Your task to perform on an android device: change keyboard looks Image 0: 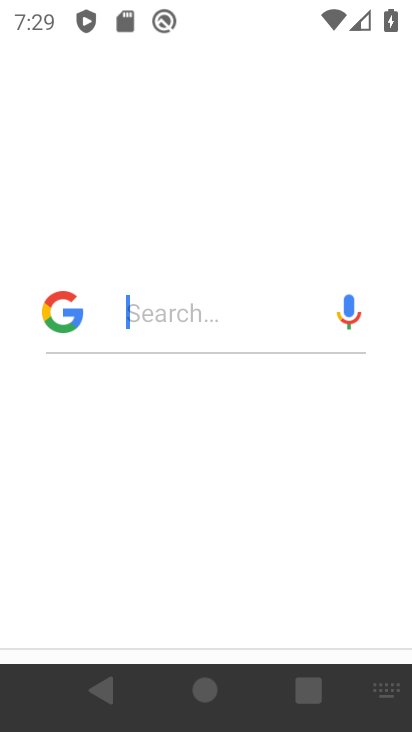
Step 0: drag from (222, 525) to (164, 383)
Your task to perform on an android device: change keyboard looks Image 1: 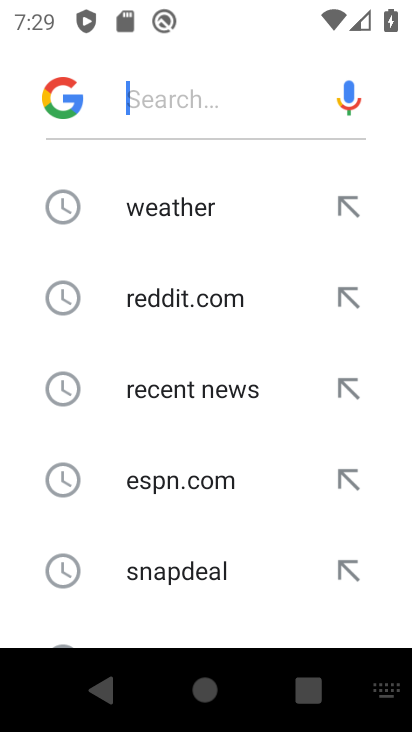
Step 1: press home button
Your task to perform on an android device: change keyboard looks Image 2: 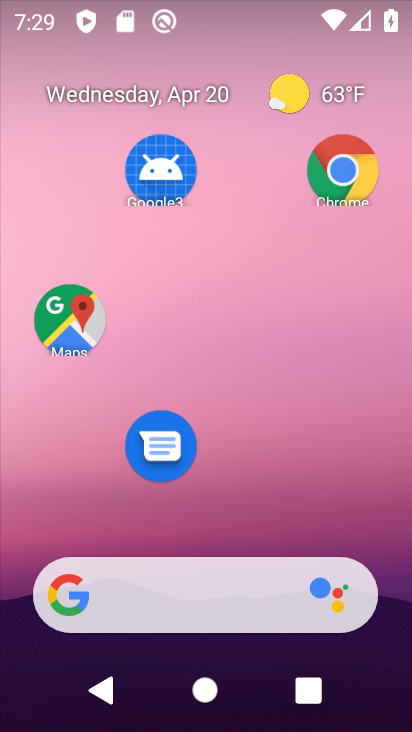
Step 2: drag from (242, 503) to (186, 15)
Your task to perform on an android device: change keyboard looks Image 3: 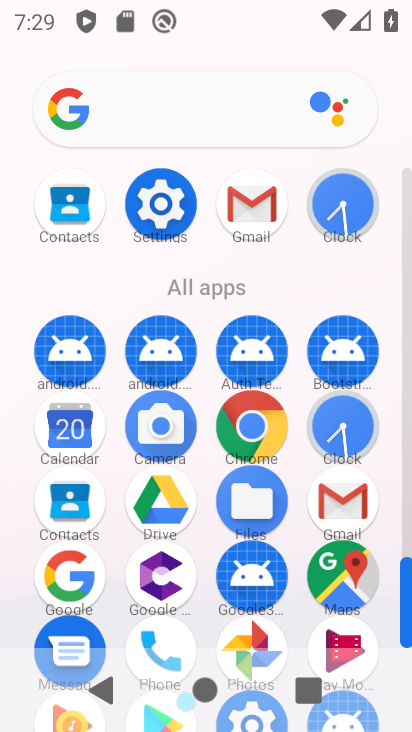
Step 3: click (167, 206)
Your task to perform on an android device: change keyboard looks Image 4: 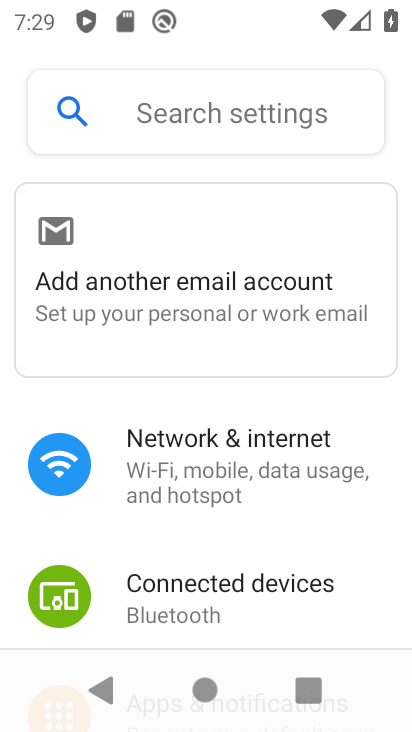
Step 4: drag from (240, 547) to (211, 137)
Your task to perform on an android device: change keyboard looks Image 5: 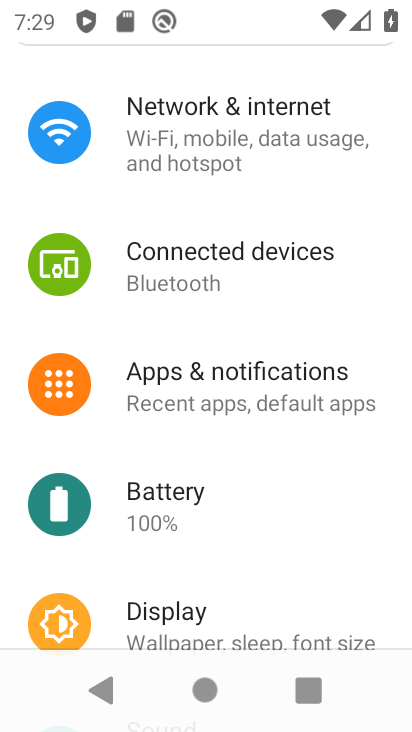
Step 5: drag from (275, 596) to (253, 394)
Your task to perform on an android device: change keyboard looks Image 6: 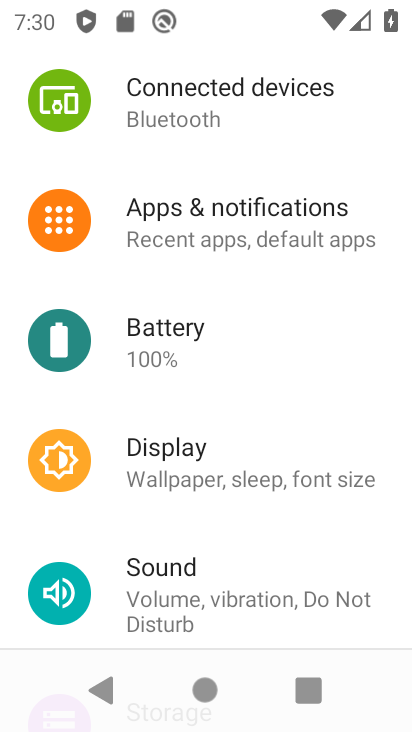
Step 6: drag from (233, 572) to (252, 318)
Your task to perform on an android device: change keyboard looks Image 7: 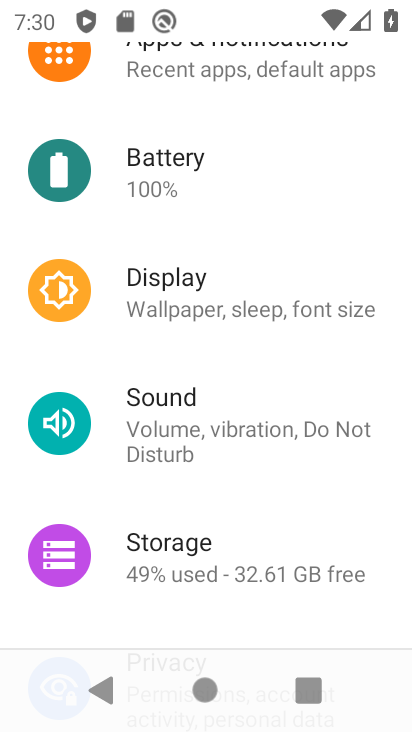
Step 7: drag from (234, 524) to (258, 155)
Your task to perform on an android device: change keyboard looks Image 8: 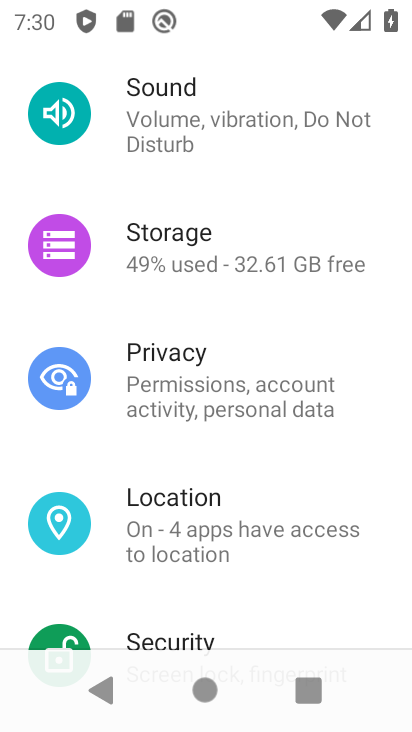
Step 8: drag from (249, 600) to (86, 29)
Your task to perform on an android device: change keyboard looks Image 9: 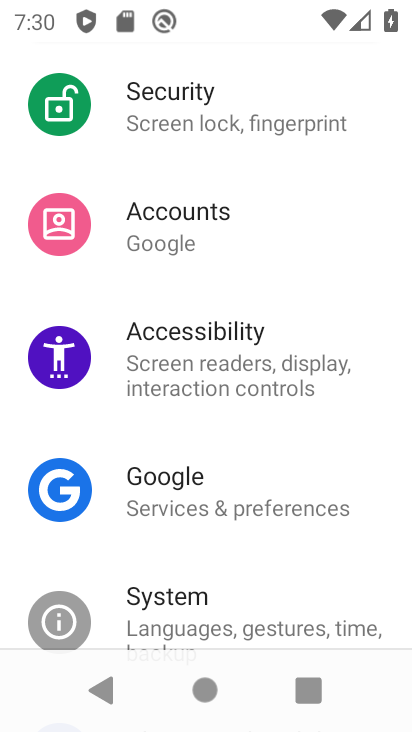
Step 9: click (169, 614)
Your task to perform on an android device: change keyboard looks Image 10: 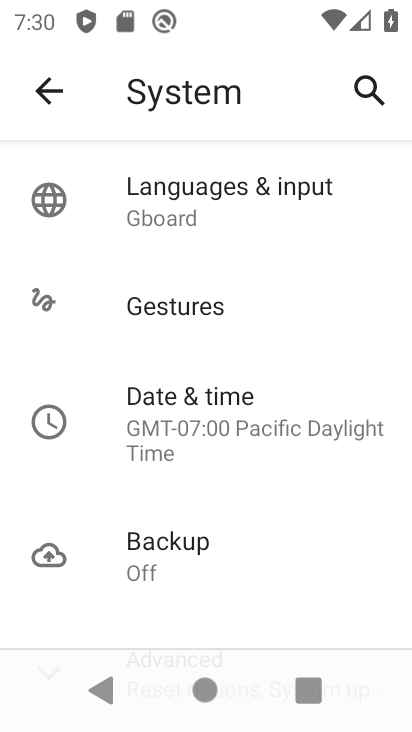
Step 10: click (165, 189)
Your task to perform on an android device: change keyboard looks Image 11: 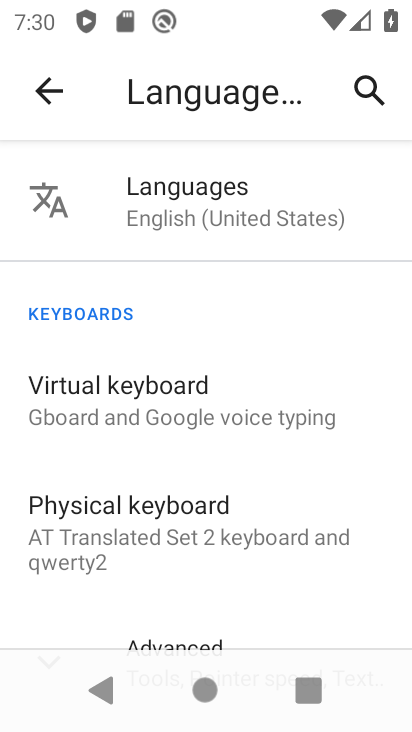
Step 11: click (115, 385)
Your task to perform on an android device: change keyboard looks Image 12: 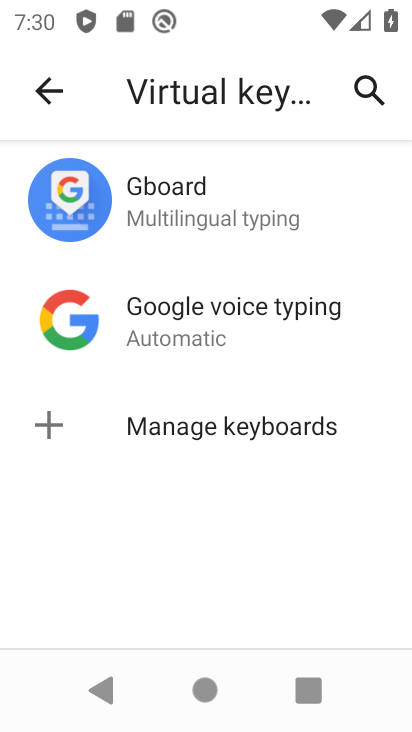
Step 12: click (166, 199)
Your task to perform on an android device: change keyboard looks Image 13: 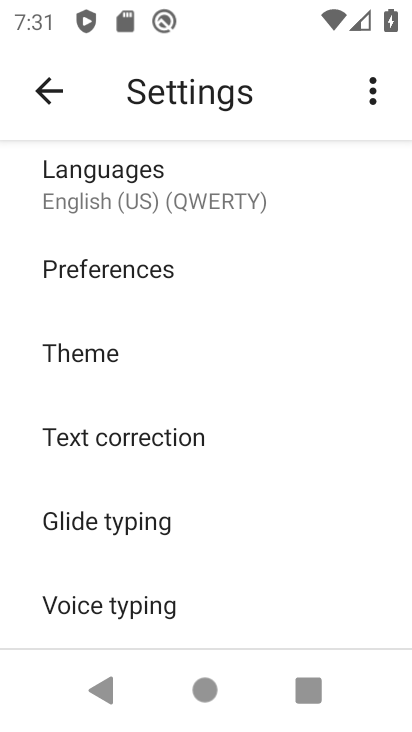
Step 13: click (85, 357)
Your task to perform on an android device: change keyboard looks Image 14: 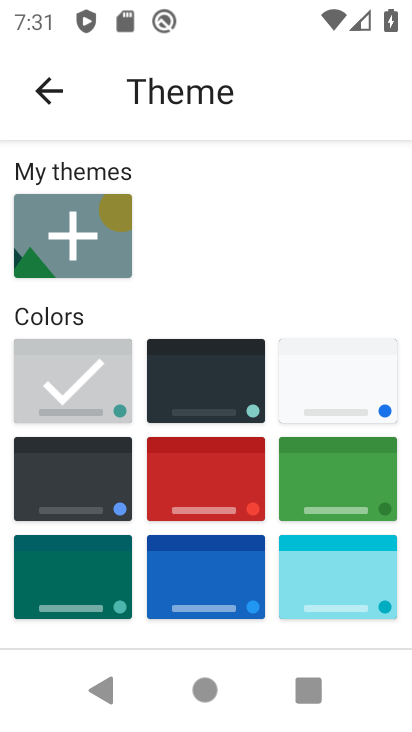
Step 14: click (173, 396)
Your task to perform on an android device: change keyboard looks Image 15: 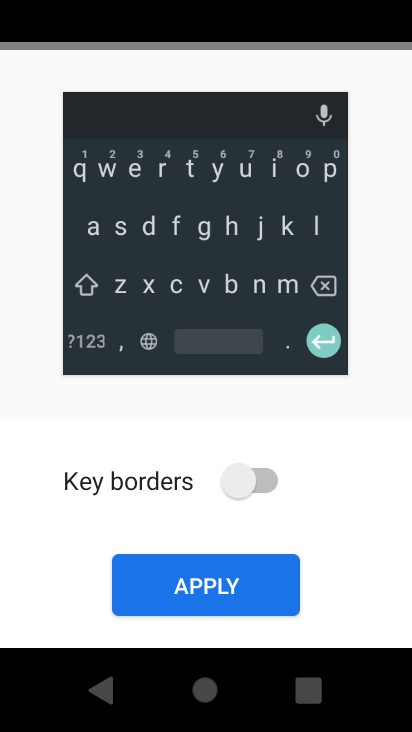
Step 15: click (231, 584)
Your task to perform on an android device: change keyboard looks Image 16: 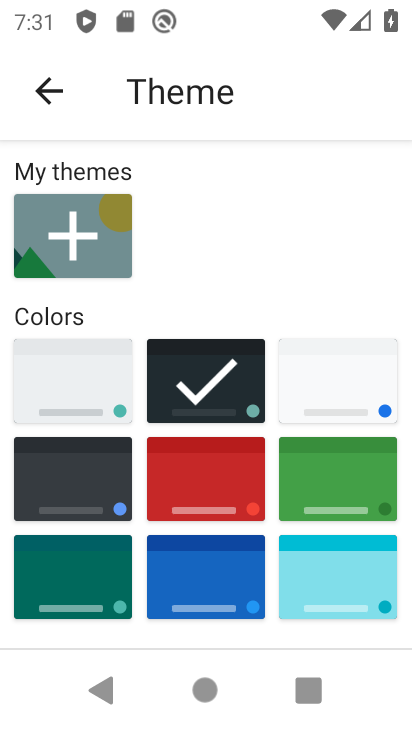
Step 16: task complete